Your task to perform on an android device: move a message to another label in the gmail app Image 0: 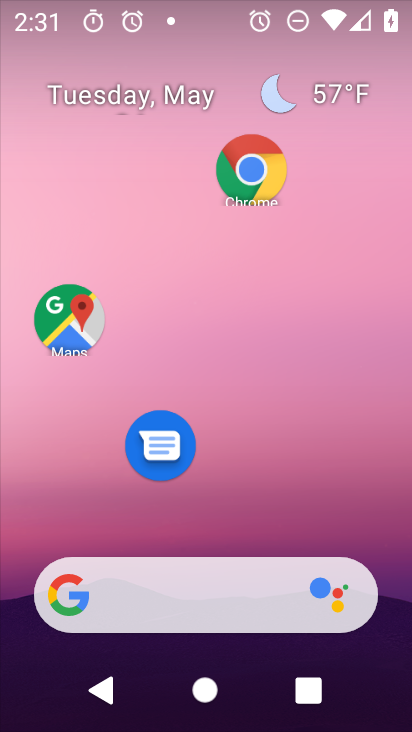
Step 0: drag from (224, 721) to (223, 209)
Your task to perform on an android device: move a message to another label in the gmail app Image 1: 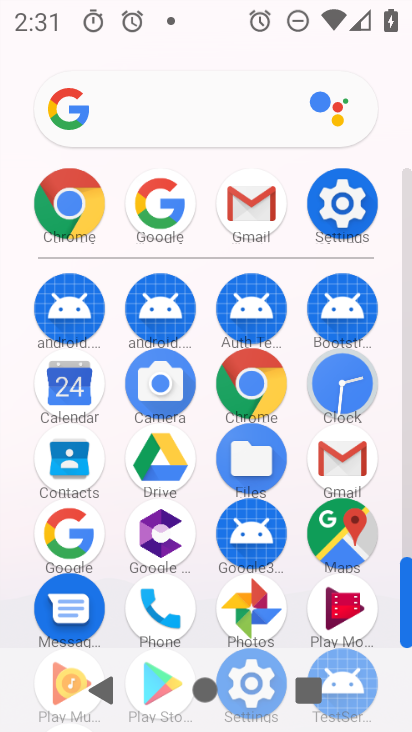
Step 1: click (338, 459)
Your task to perform on an android device: move a message to another label in the gmail app Image 2: 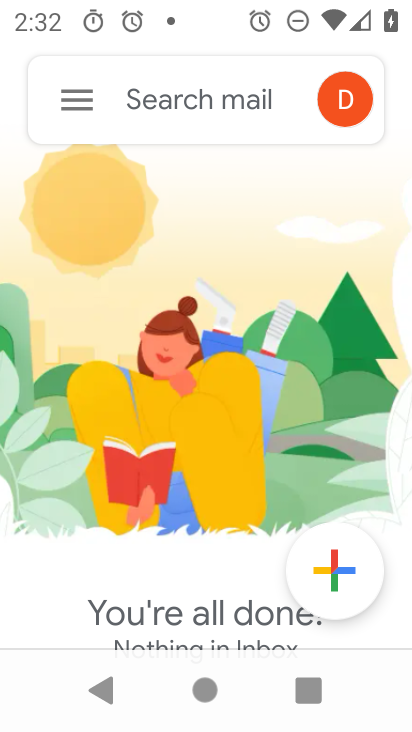
Step 2: task complete